Your task to perform on an android device: Go to accessibility settings Image 0: 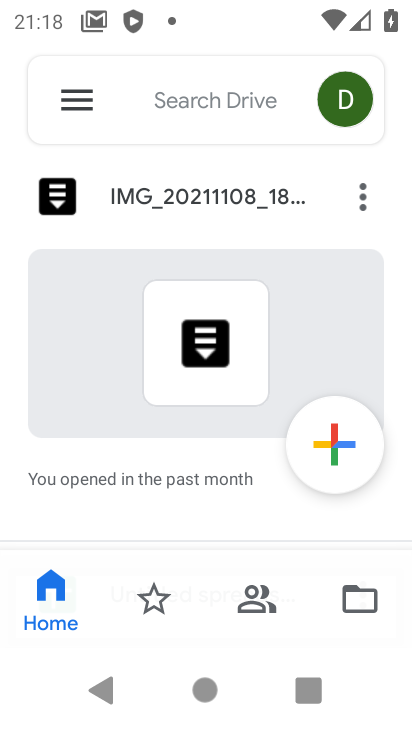
Step 0: press home button
Your task to perform on an android device: Go to accessibility settings Image 1: 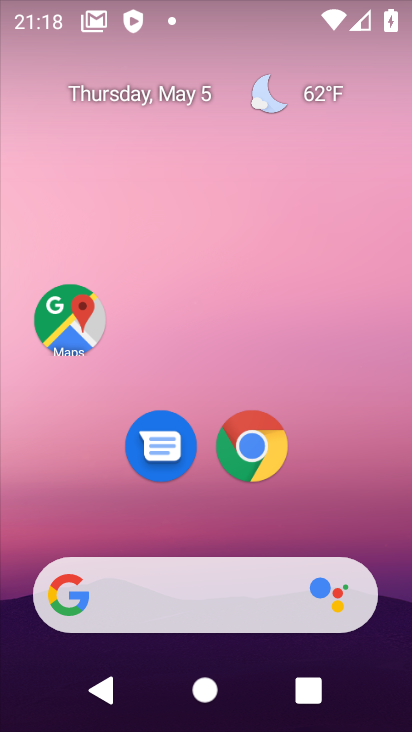
Step 1: drag from (262, 650) to (270, 183)
Your task to perform on an android device: Go to accessibility settings Image 2: 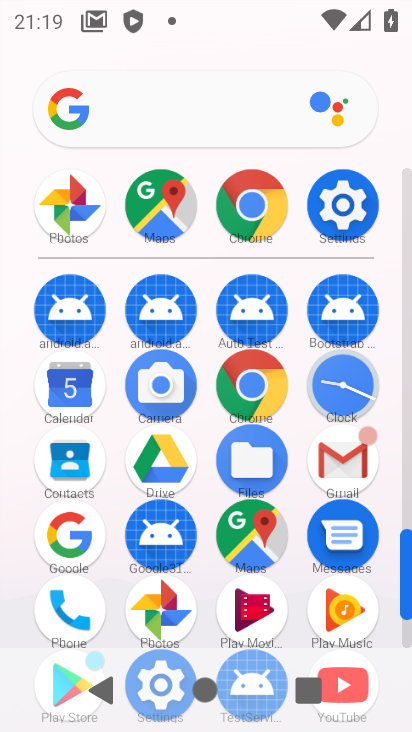
Step 2: click (337, 227)
Your task to perform on an android device: Go to accessibility settings Image 3: 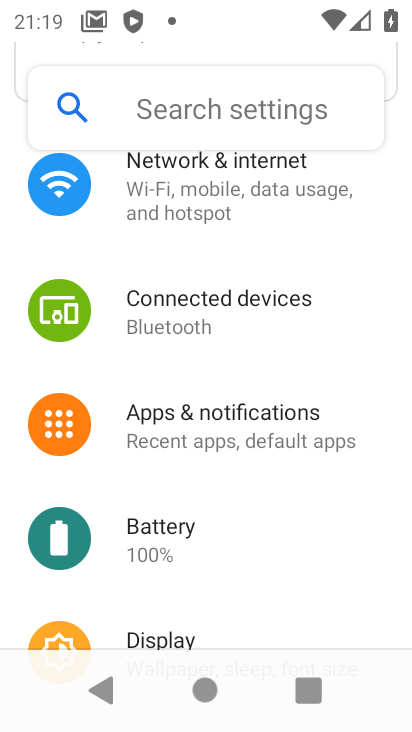
Step 3: click (161, 94)
Your task to perform on an android device: Go to accessibility settings Image 4: 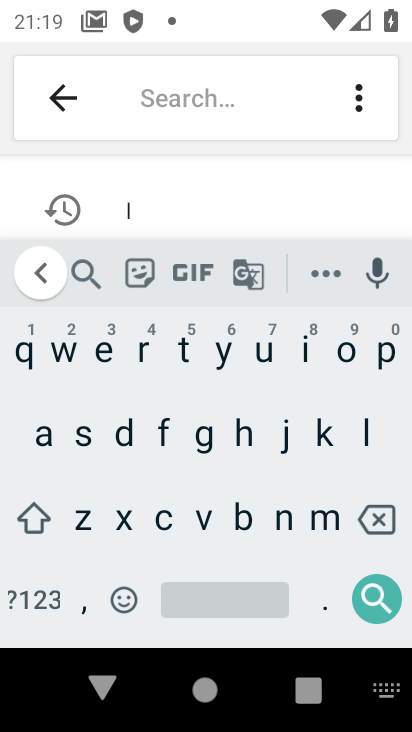
Step 4: click (30, 439)
Your task to perform on an android device: Go to accessibility settings Image 5: 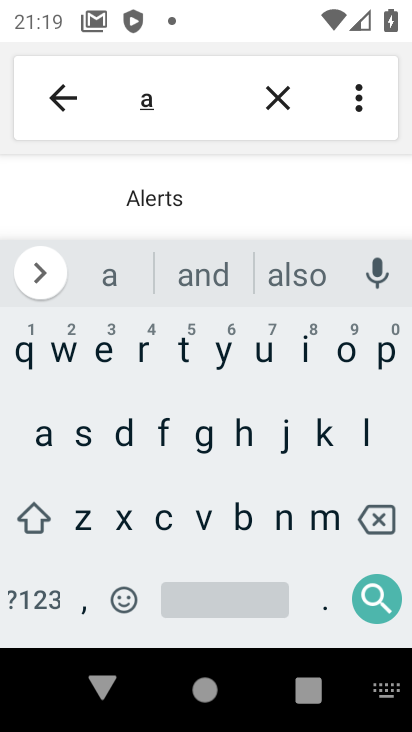
Step 5: click (155, 521)
Your task to perform on an android device: Go to accessibility settings Image 6: 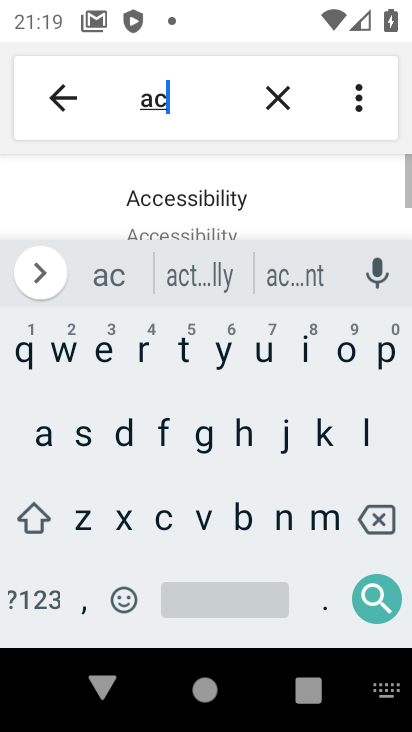
Step 6: click (155, 521)
Your task to perform on an android device: Go to accessibility settings Image 7: 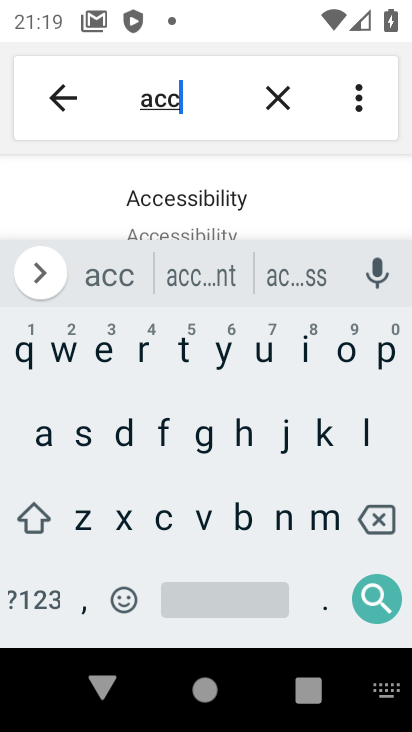
Step 7: click (208, 186)
Your task to perform on an android device: Go to accessibility settings Image 8: 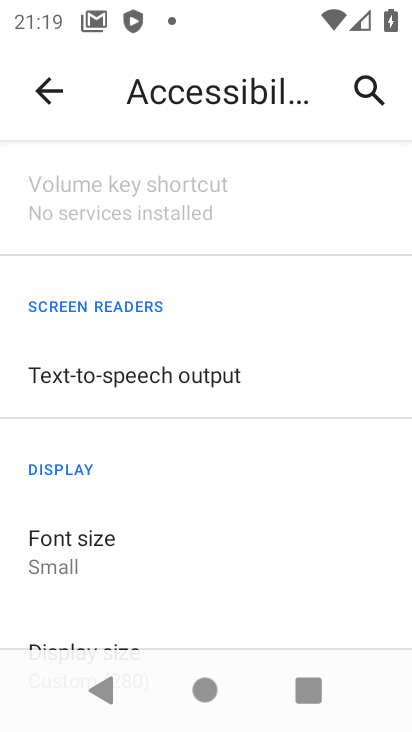
Step 8: task complete